Your task to perform on an android device: Is it going to rain tomorrow? Image 0: 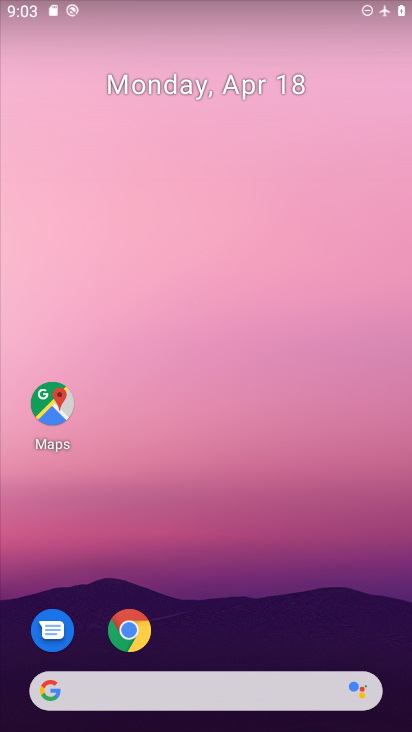
Step 0: drag from (241, 82) to (19, 72)
Your task to perform on an android device: Is it going to rain tomorrow? Image 1: 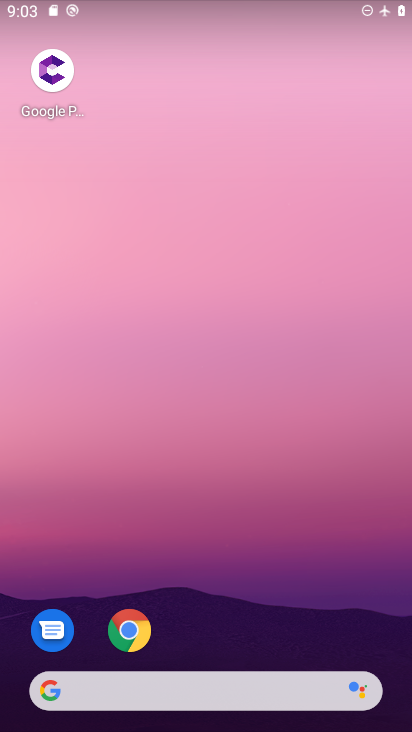
Step 1: drag from (362, 122) to (9, 297)
Your task to perform on an android device: Is it going to rain tomorrow? Image 2: 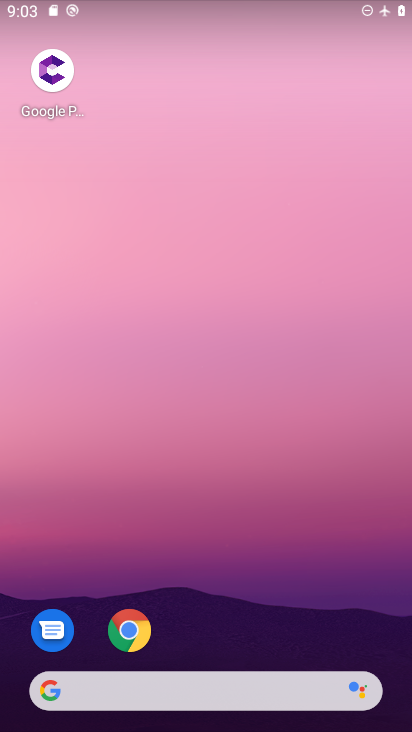
Step 2: drag from (92, 367) to (400, 389)
Your task to perform on an android device: Is it going to rain tomorrow? Image 3: 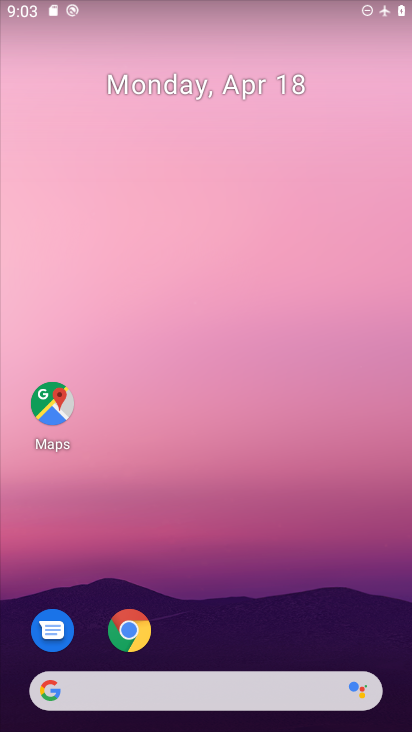
Step 3: drag from (246, 581) to (409, 3)
Your task to perform on an android device: Is it going to rain tomorrow? Image 4: 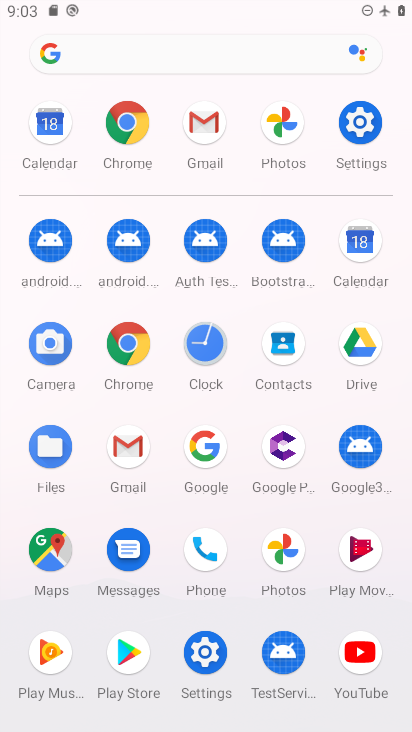
Step 4: drag from (235, 590) to (255, 639)
Your task to perform on an android device: Is it going to rain tomorrow? Image 5: 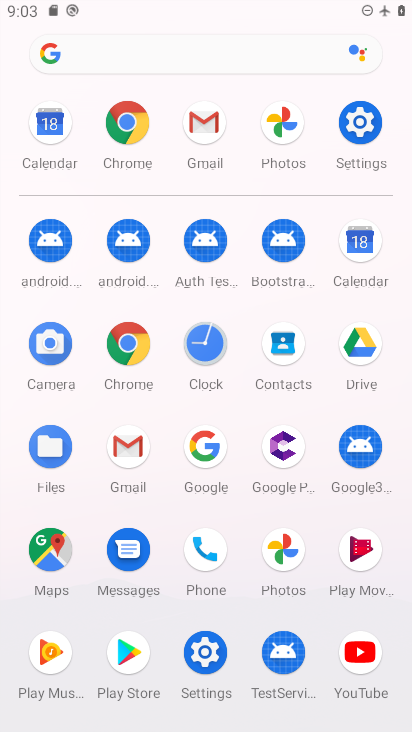
Step 5: click (205, 57)
Your task to perform on an android device: Is it going to rain tomorrow? Image 6: 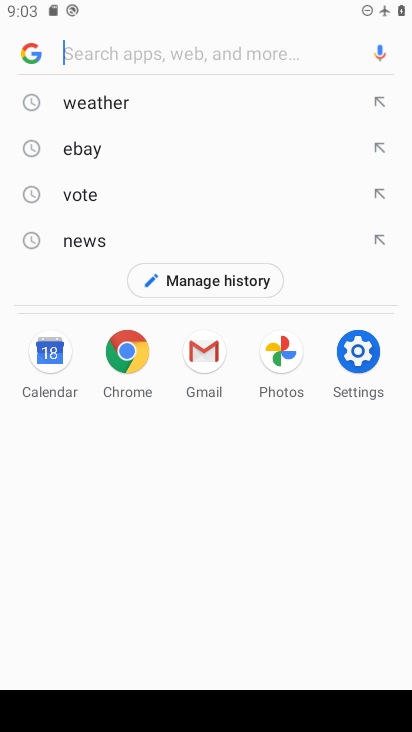
Step 6: click (125, 109)
Your task to perform on an android device: Is it going to rain tomorrow? Image 7: 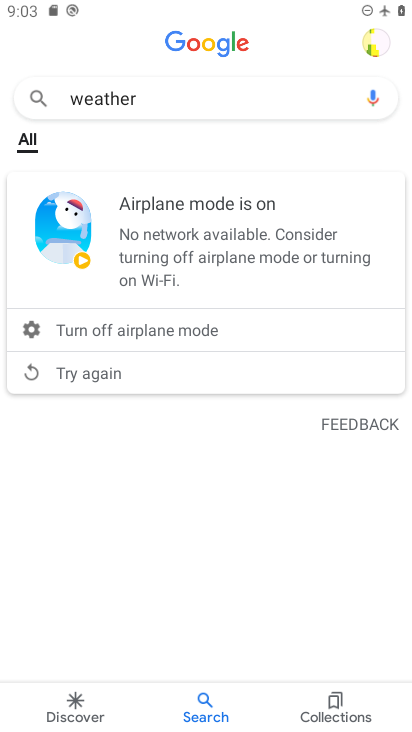
Step 7: task complete